Your task to perform on an android device: Go to privacy settings Image 0: 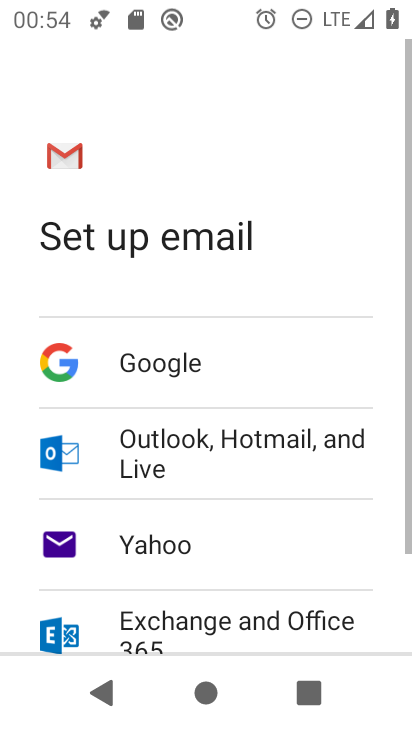
Step 0: press home button
Your task to perform on an android device: Go to privacy settings Image 1: 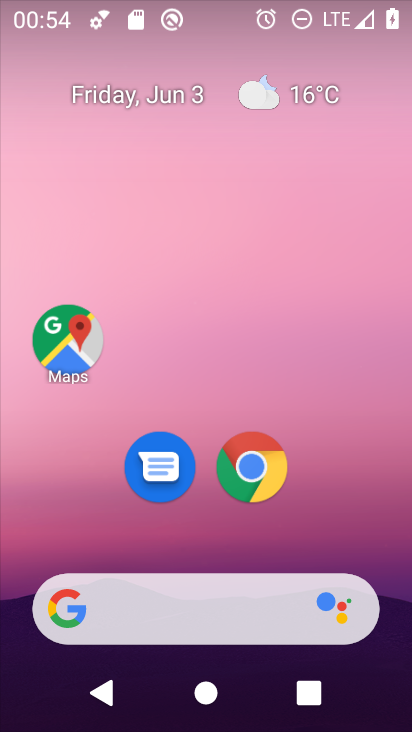
Step 1: drag from (399, 588) to (316, 201)
Your task to perform on an android device: Go to privacy settings Image 2: 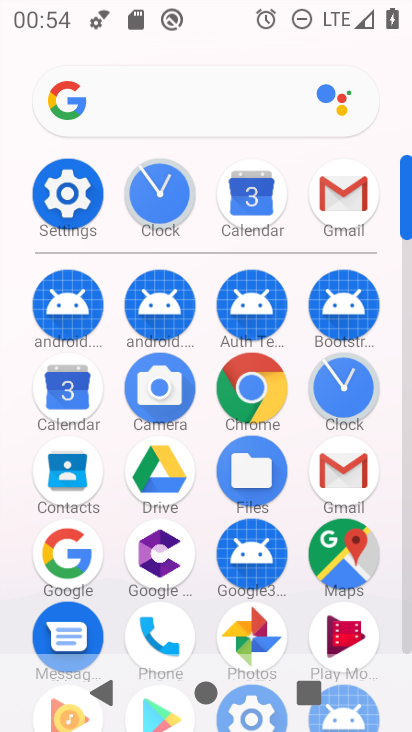
Step 2: click (404, 636)
Your task to perform on an android device: Go to privacy settings Image 3: 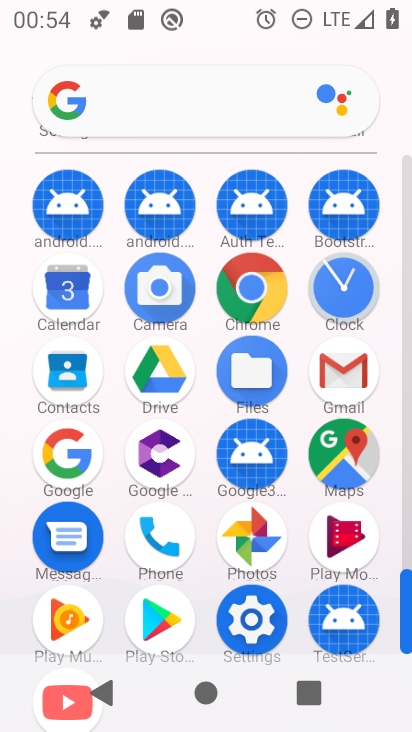
Step 3: click (254, 617)
Your task to perform on an android device: Go to privacy settings Image 4: 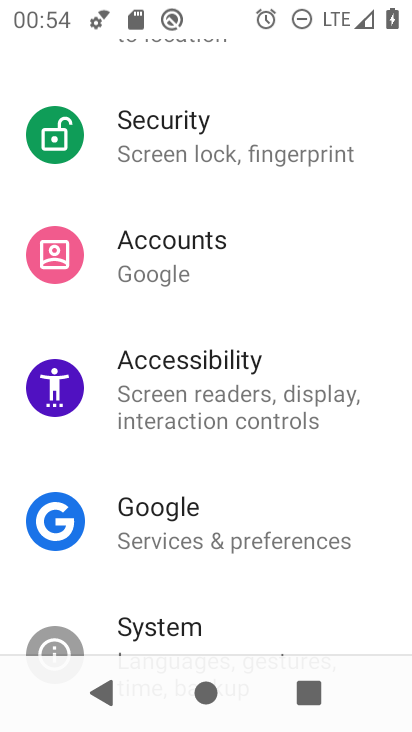
Step 4: drag from (363, 135) to (354, 551)
Your task to perform on an android device: Go to privacy settings Image 5: 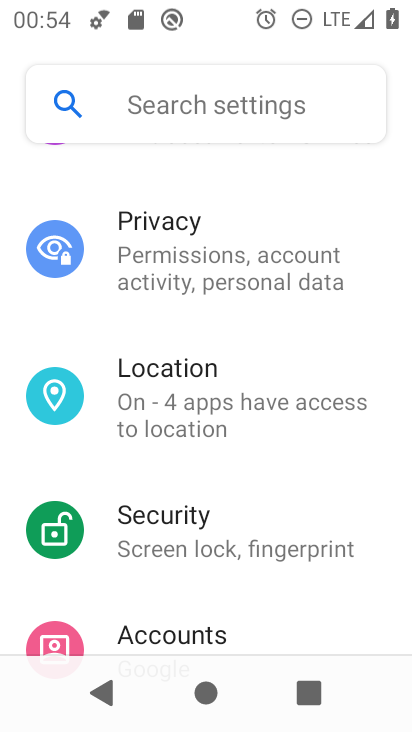
Step 5: click (157, 234)
Your task to perform on an android device: Go to privacy settings Image 6: 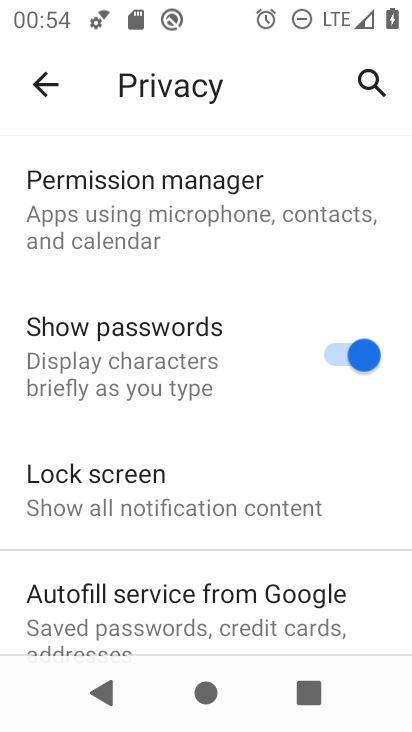
Step 6: drag from (333, 528) to (281, 193)
Your task to perform on an android device: Go to privacy settings Image 7: 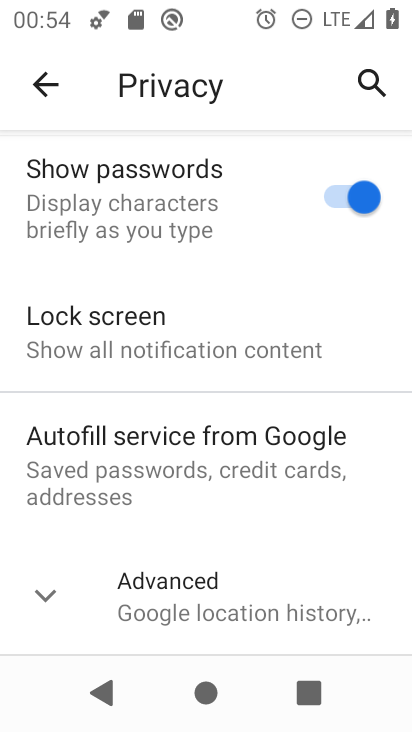
Step 7: click (38, 597)
Your task to perform on an android device: Go to privacy settings Image 8: 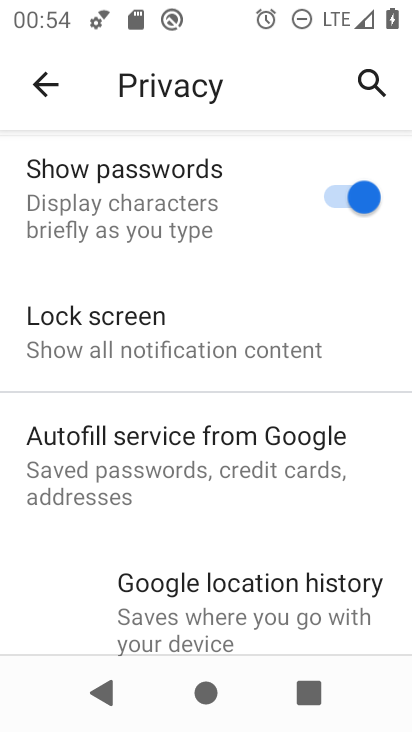
Step 8: task complete